Your task to perform on an android device: turn on showing notifications on the lock screen Image 0: 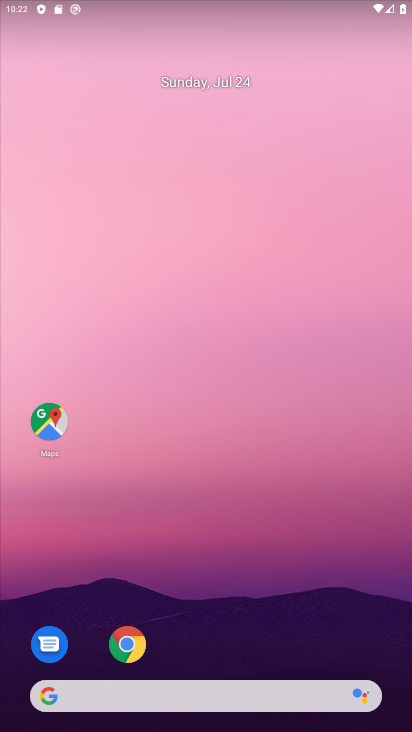
Step 0: drag from (244, 665) to (295, 106)
Your task to perform on an android device: turn on showing notifications on the lock screen Image 1: 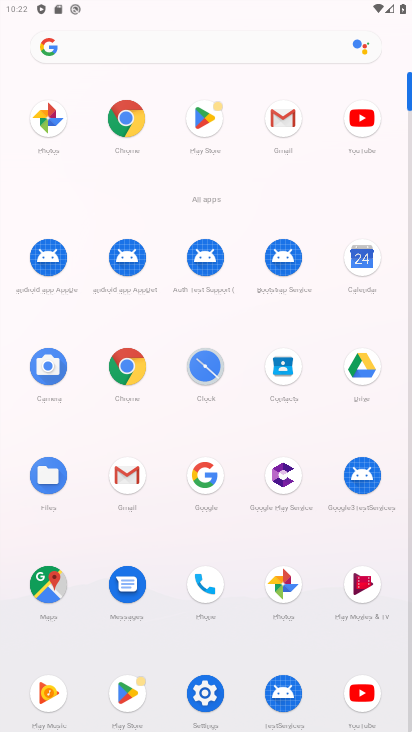
Step 1: click (200, 694)
Your task to perform on an android device: turn on showing notifications on the lock screen Image 2: 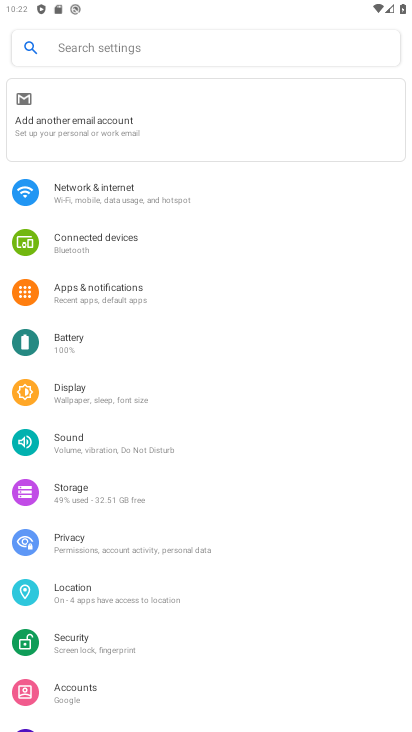
Step 2: click (82, 296)
Your task to perform on an android device: turn on showing notifications on the lock screen Image 3: 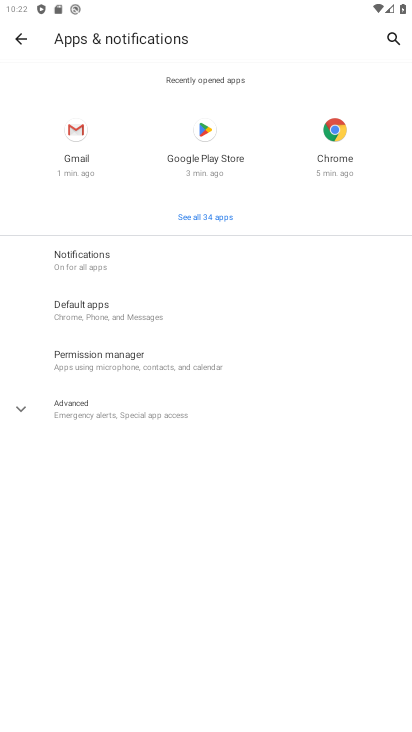
Step 3: click (72, 267)
Your task to perform on an android device: turn on showing notifications on the lock screen Image 4: 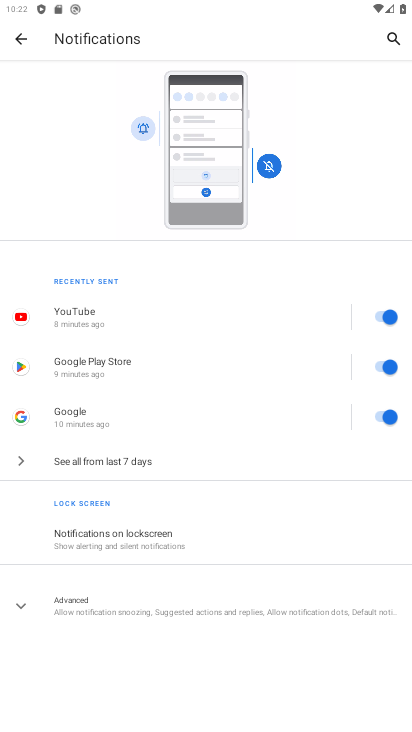
Step 4: click (91, 540)
Your task to perform on an android device: turn on showing notifications on the lock screen Image 5: 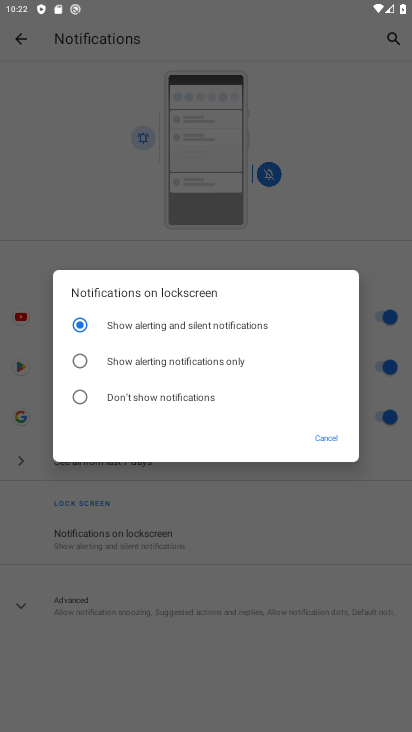
Step 5: task complete